Your task to perform on an android device: Open battery settings Image 0: 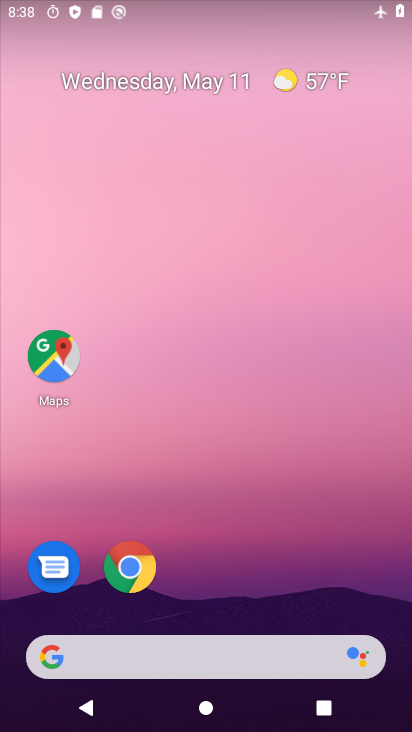
Step 0: drag from (293, 552) to (189, 4)
Your task to perform on an android device: Open battery settings Image 1: 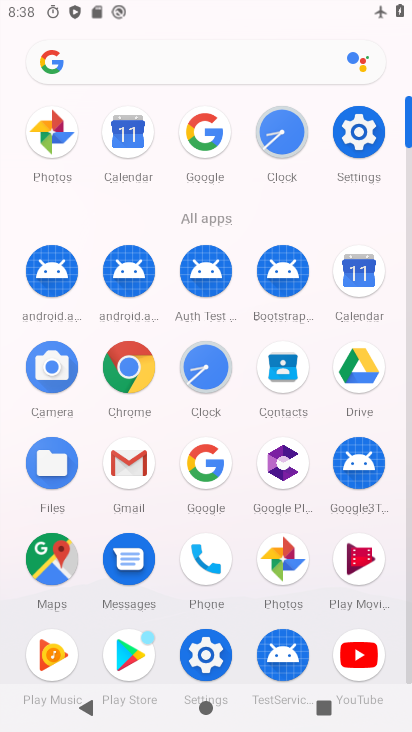
Step 1: click (358, 135)
Your task to perform on an android device: Open battery settings Image 2: 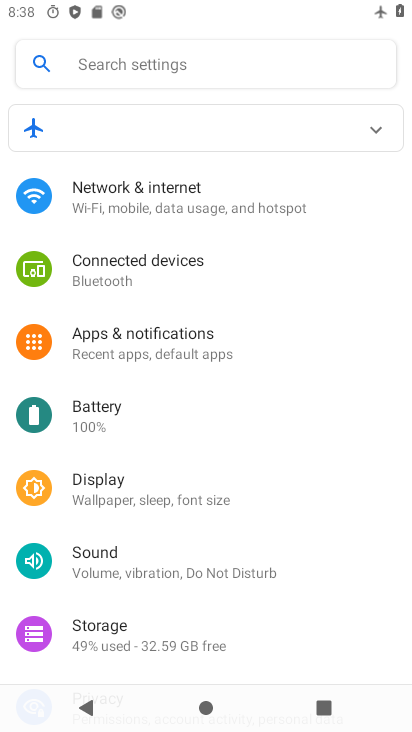
Step 2: click (155, 415)
Your task to perform on an android device: Open battery settings Image 3: 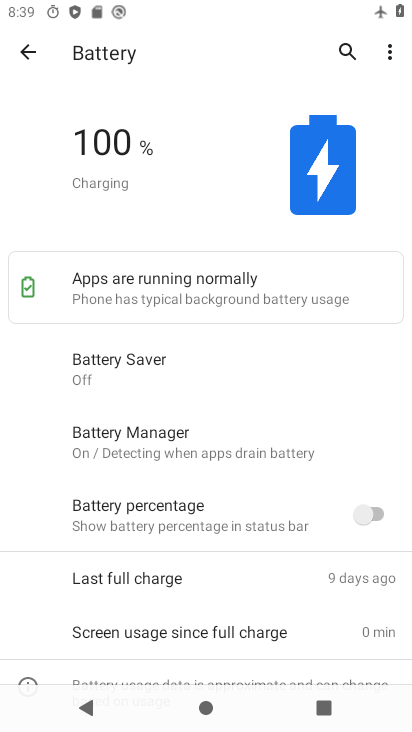
Step 3: task complete